Your task to perform on an android device: change notification settings in the gmail app Image 0: 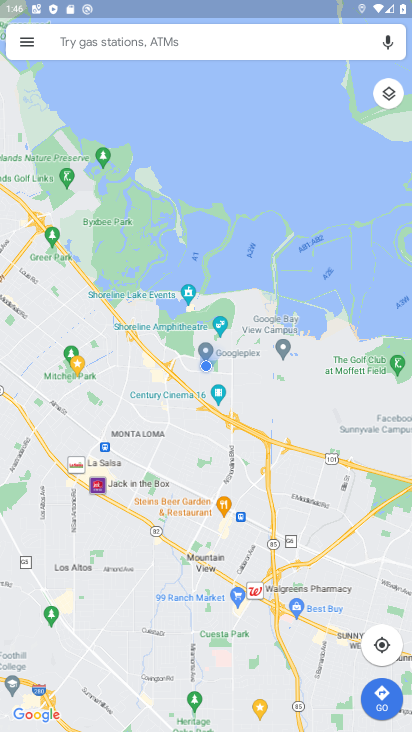
Step 0: press back button
Your task to perform on an android device: change notification settings in the gmail app Image 1: 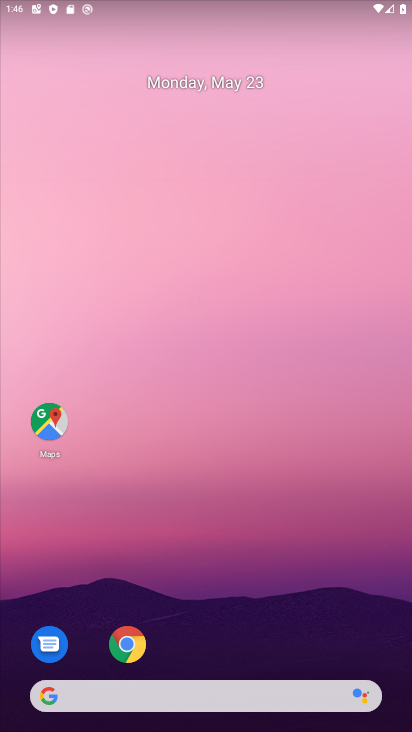
Step 1: drag from (239, 605) to (219, 19)
Your task to perform on an android device: change notification settings in the gmail app Image 2: 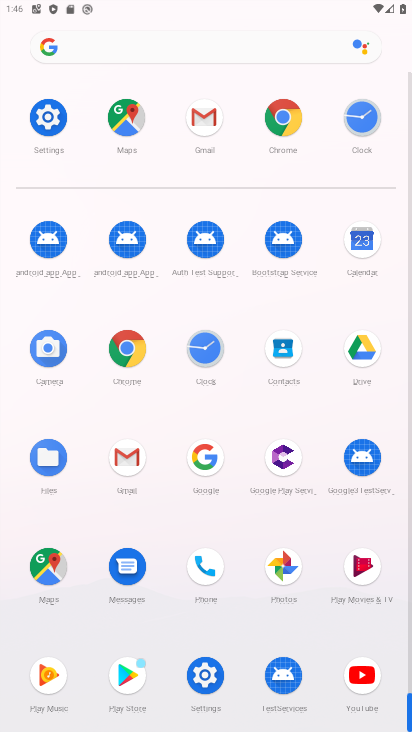
Step 2: click (127, 448)
Your task to perform on an android device: change notification settings in the gmail app Image 3: 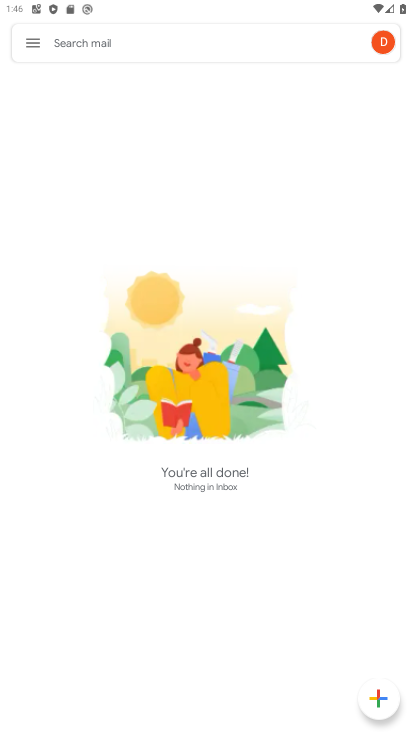
Step 3: click (41, 36)
Your task to perform on an android device: change notification settings in the gmail app Image 4: 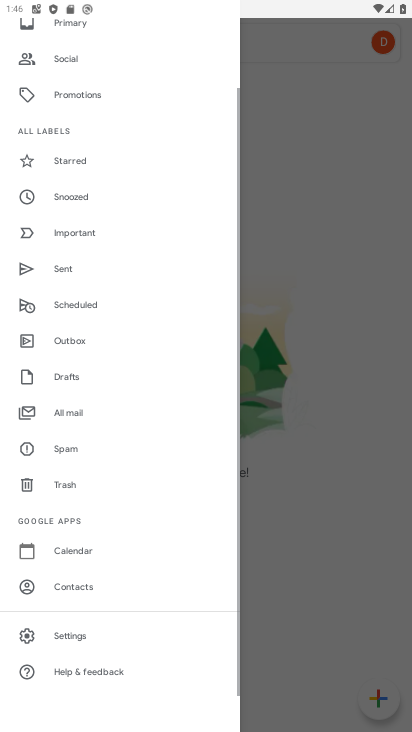
Step 4: drag from (148, 583) to (142, 92)
Your task to perform on an android device: change notification settings in the gmail app Image 5: 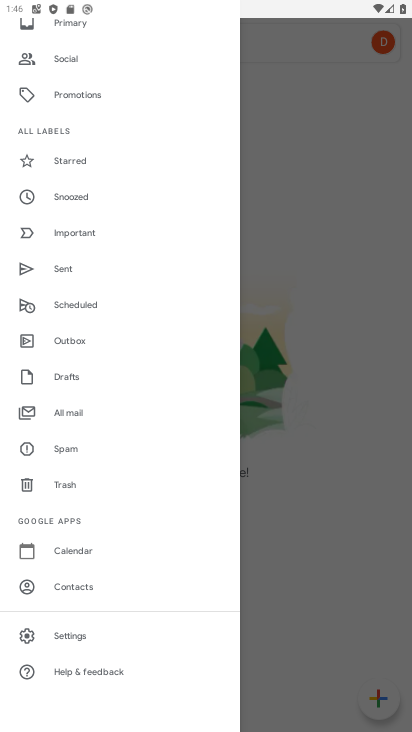
Step 5: click (74, 640)
Your task to perform on an android device: change notification settings in the gmail app Image 6: 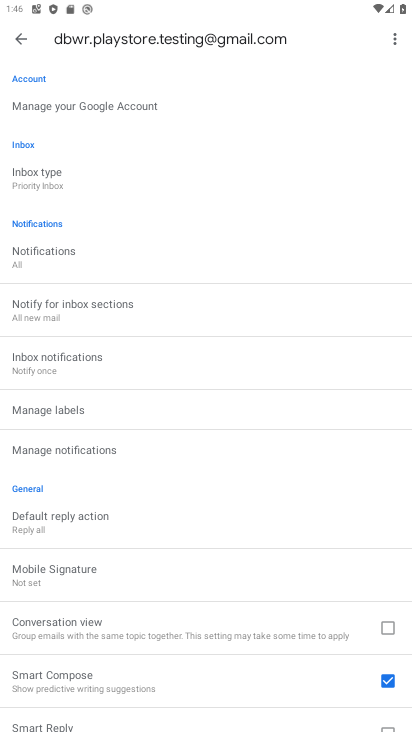
Step 6: drag from (185, 602) to (248, 154)
Your task to perform on an android device: change notification settings in the gmail app Image 7: 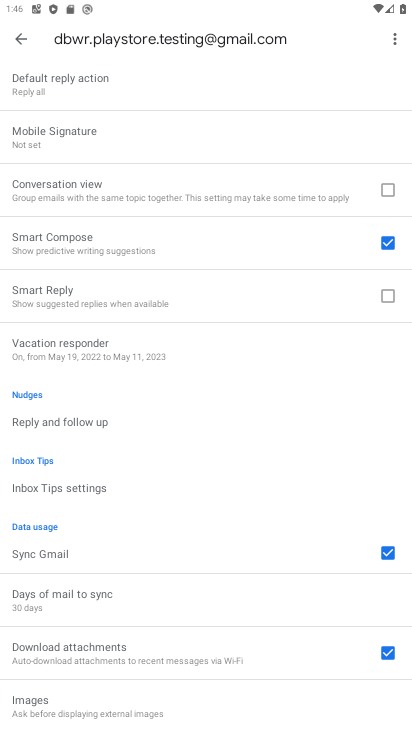
Step 7: drag from (248, 196) to (244, 565)
Your task to perform on an android device: change notification settings in the gmail app Image 8: 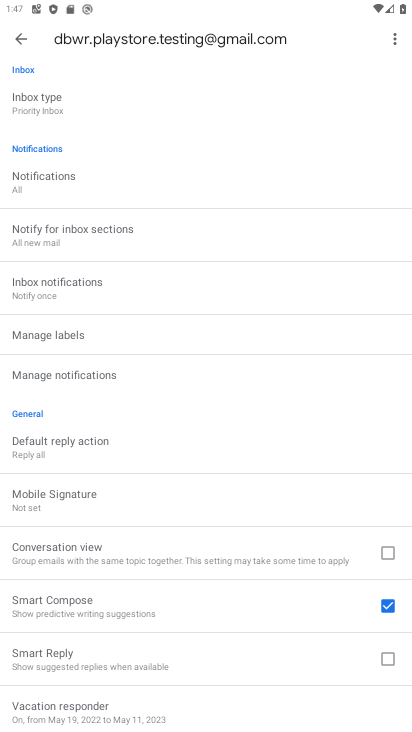
Step 8: drag from (172, 111) to (171, 475)
Your task to perform on an android device: change notification settings in the gmail app Image 9: 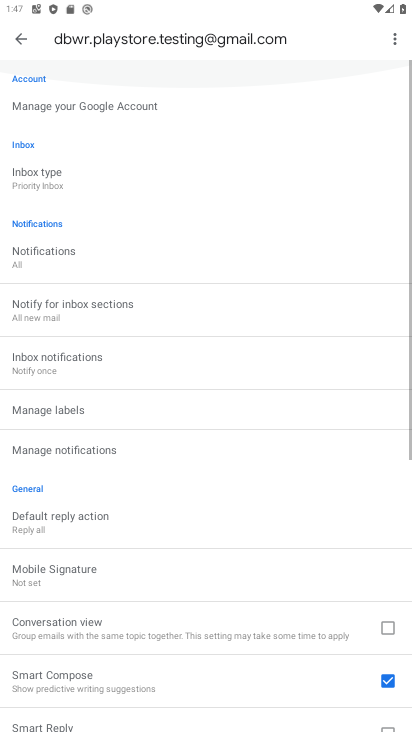
Step 9: drag from (218, 459) to (224, 173)
Your task to perform on an android device: change notification settings in the gmail app Image 10: 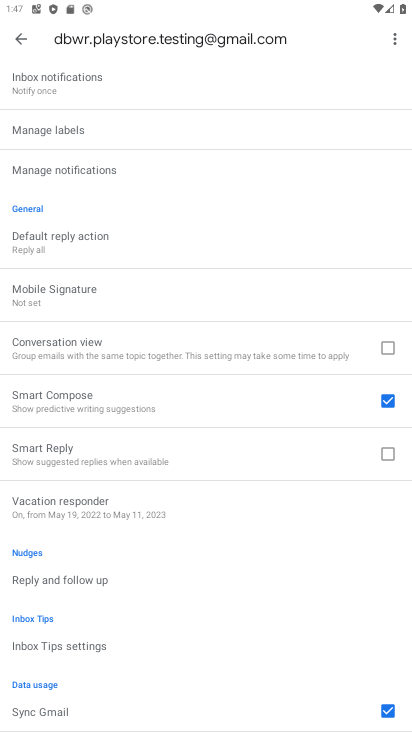
Step 10: click (107, 163)
Your task to perform on an android device: change notification settings in the gmail app Image 11: 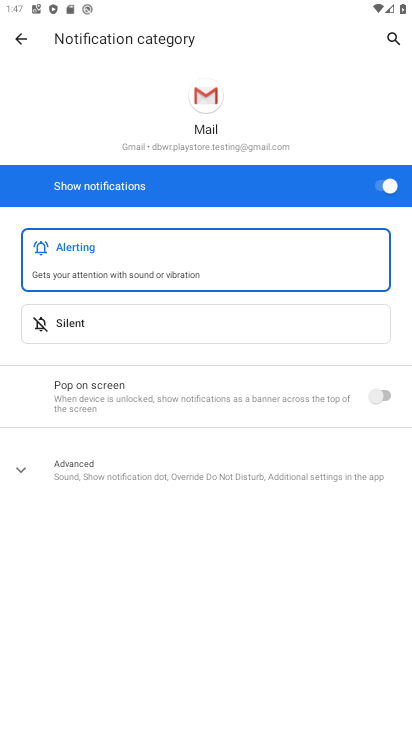
Step 11: click (375, 180)
Your task to perform on an android device: change notification settings in the gmail app Image 12: 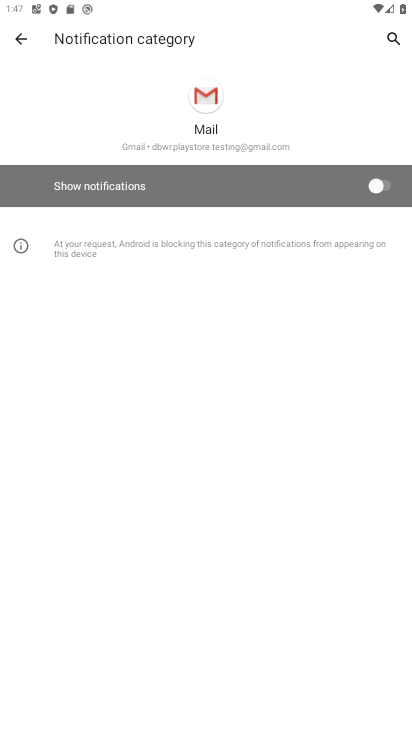
Step 12: task complete